Your task to perform on an android device: Open the map Image 0: 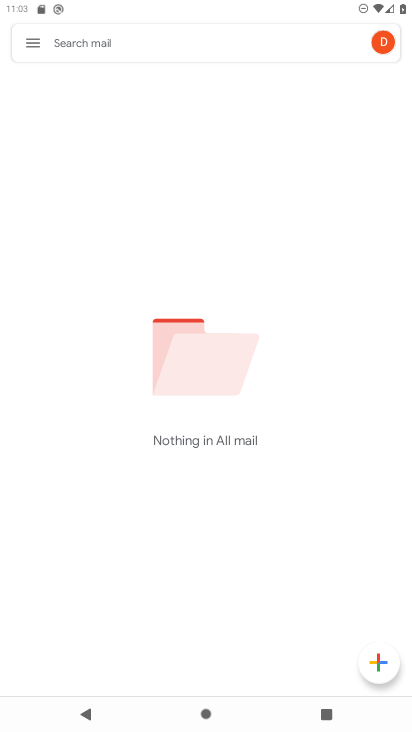
Step 0: press home button
Your task to perform on an android device: Open the map Image 1: 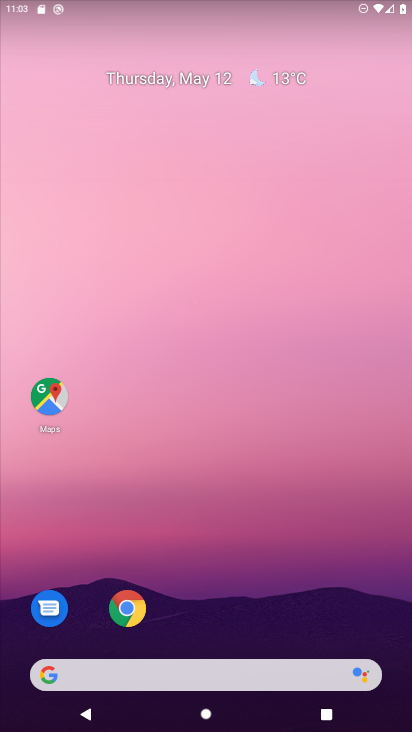
Step 1: click (47, 405)
Your task to perform on an android device: Open the map Image 2: 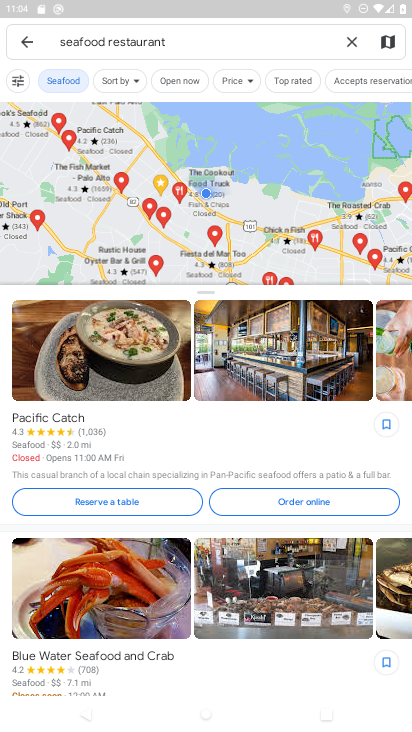
Step 2: task complete